Your task to perform on an android device: install app "Adobe Express: Graphic Design" Image 0: 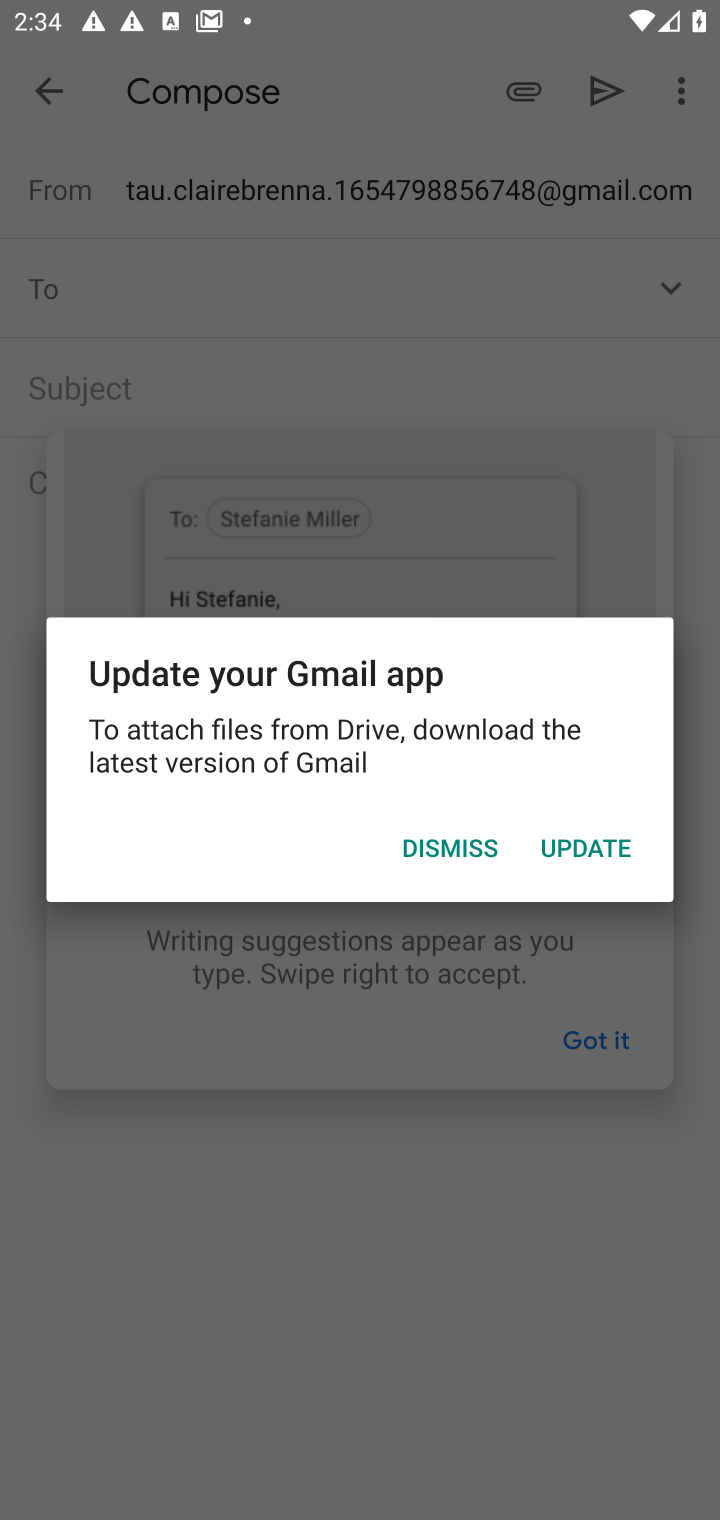
Step 0: press home button
Your task to perform on an android device: install app "Adobe Express: Graphic Design" Image 1: 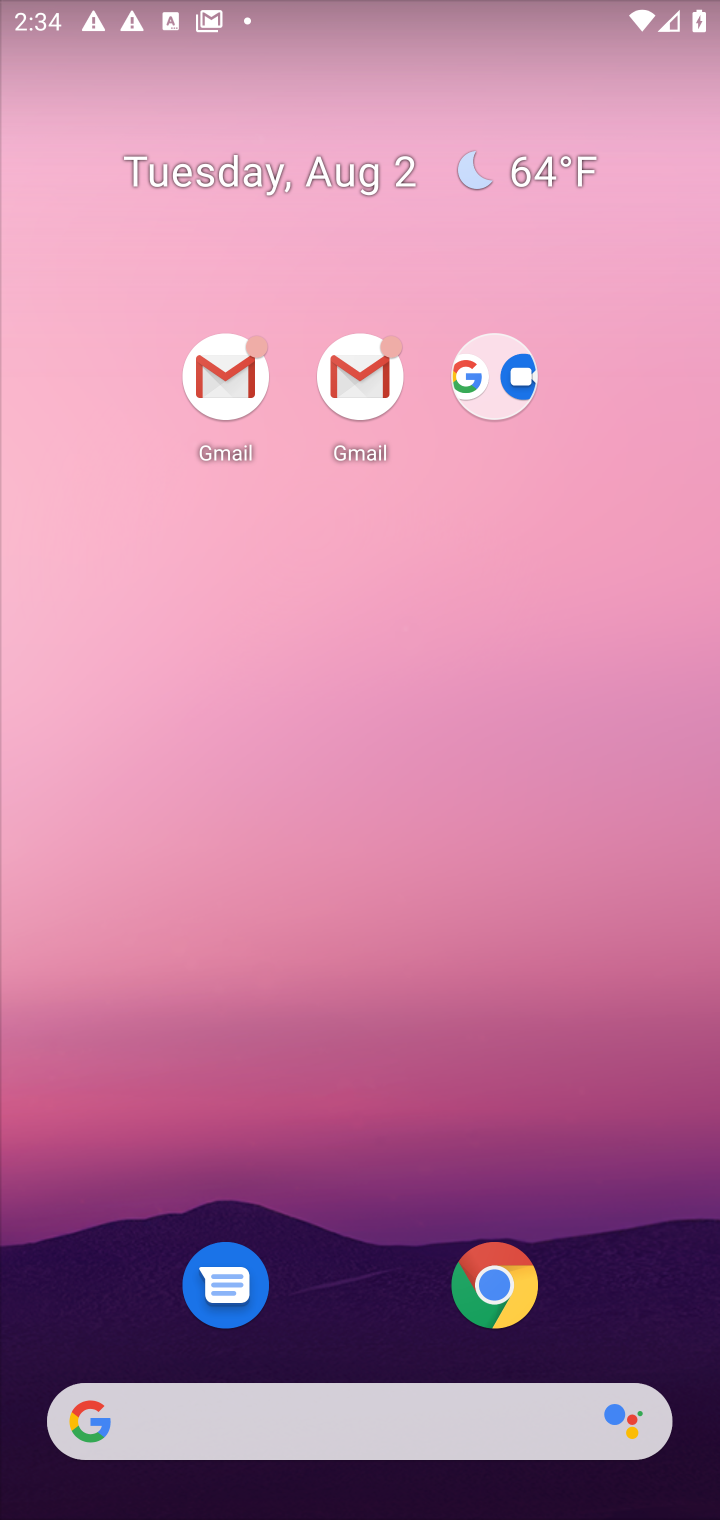
Step 1: drag from (336, 1038) to (334, 4)
Your task to perform on an android device: install app "Adobe Express: Graphic Design" Image 2: 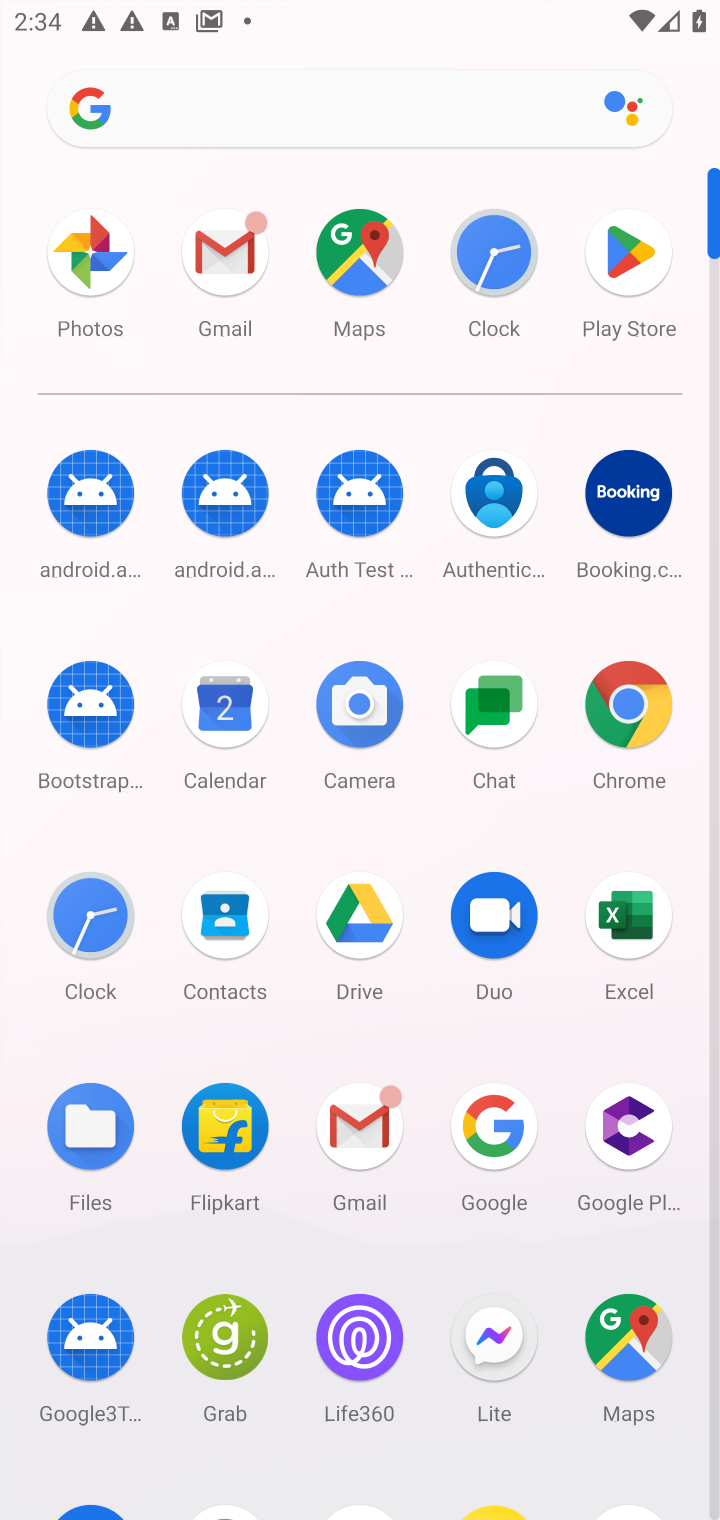
Step 2: drag from (396, 1228) to (314, 436)
Your task to perform on an android device: install app "Adobe Express: Graphic Design" Image 3: 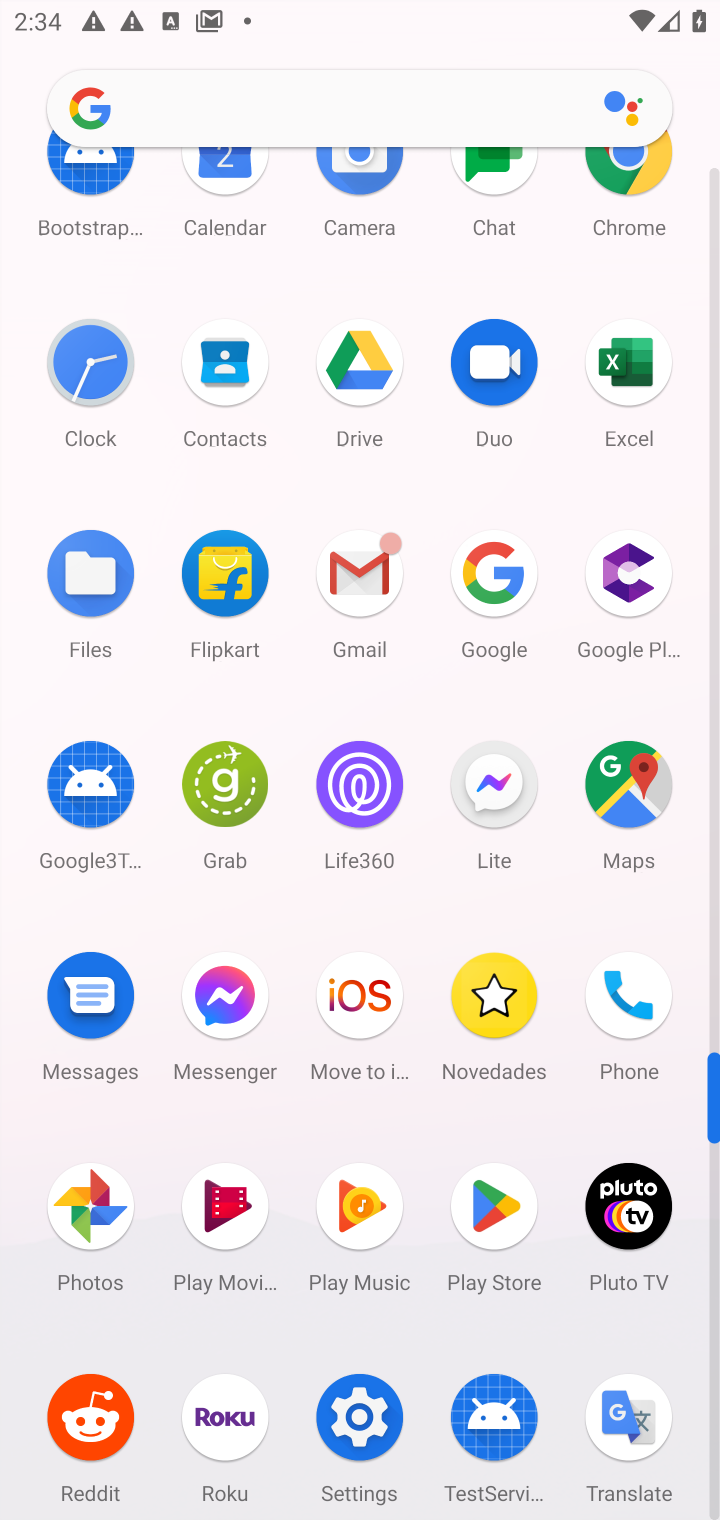
Step 3: click (515, 1211)
Your task to perform on an android device: install app "Adobe Express: Graphic Design" Image 4: 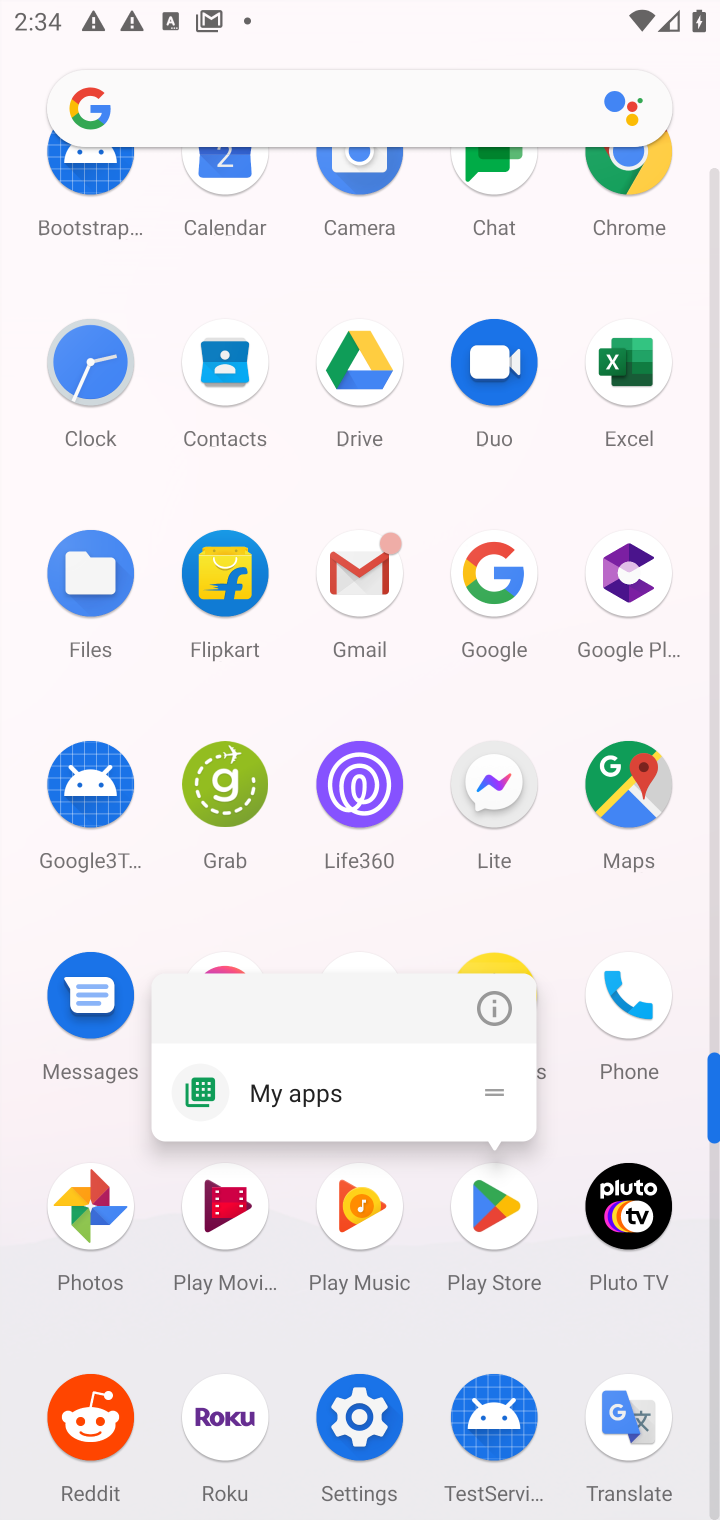
Step 4: click (481, 1227)
Your task to perform on an android device: install app "Adobe Express: Graphic Design" Image 5: 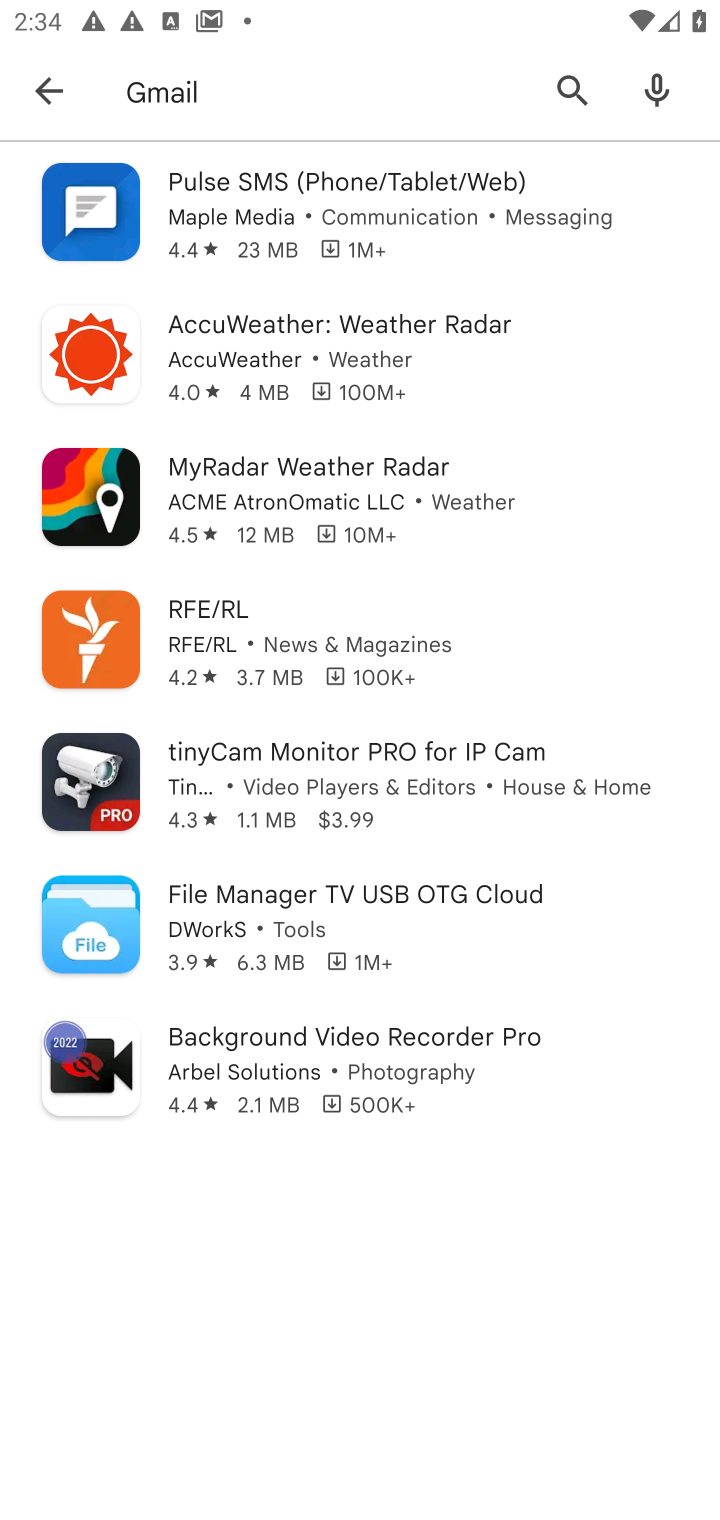
Step 5: click (219, 89)
Your task to perform on an android device: install app "Adobe Express: Graphic Design" Image 6: 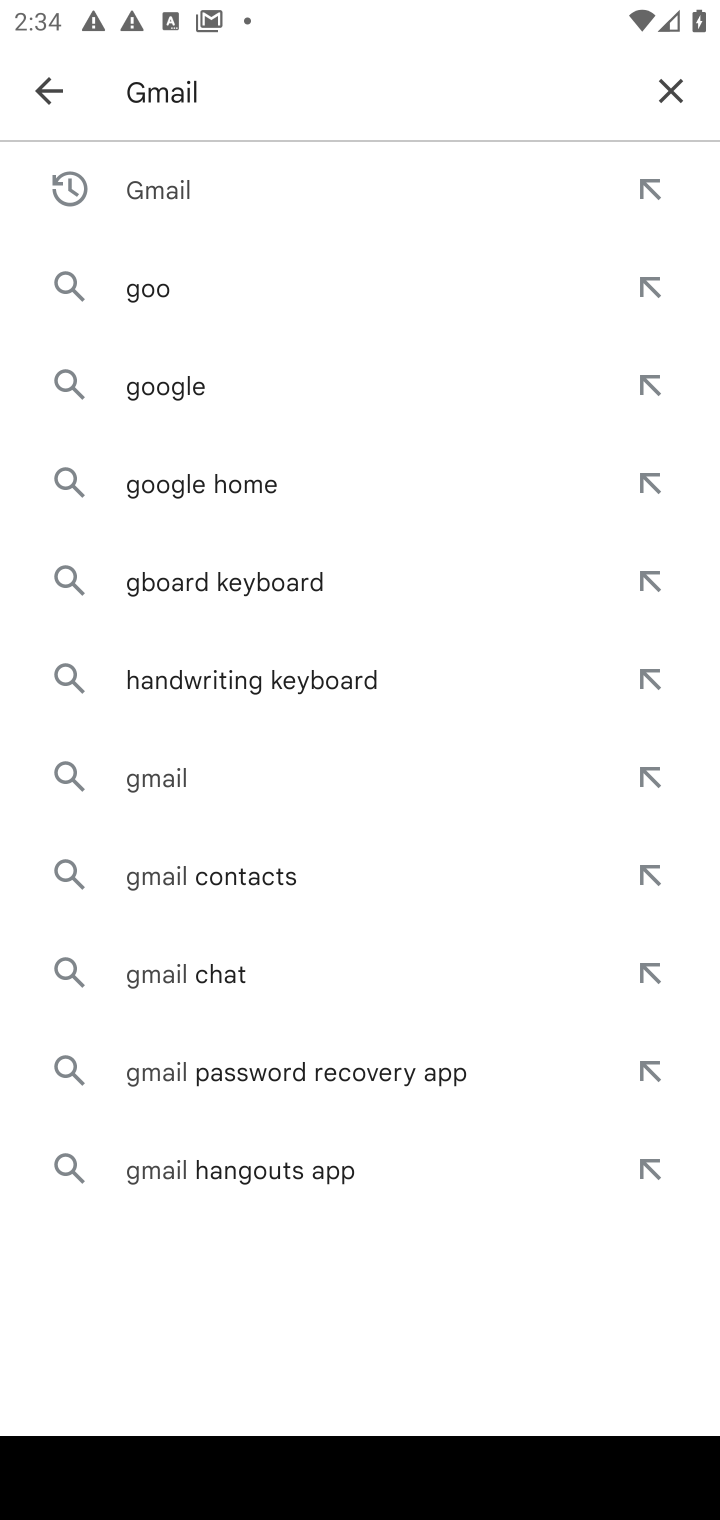
Step 6: click (683, 85)
Your task to perform on an android device: install app "Adobe Express: Graphic Design" Image 7: 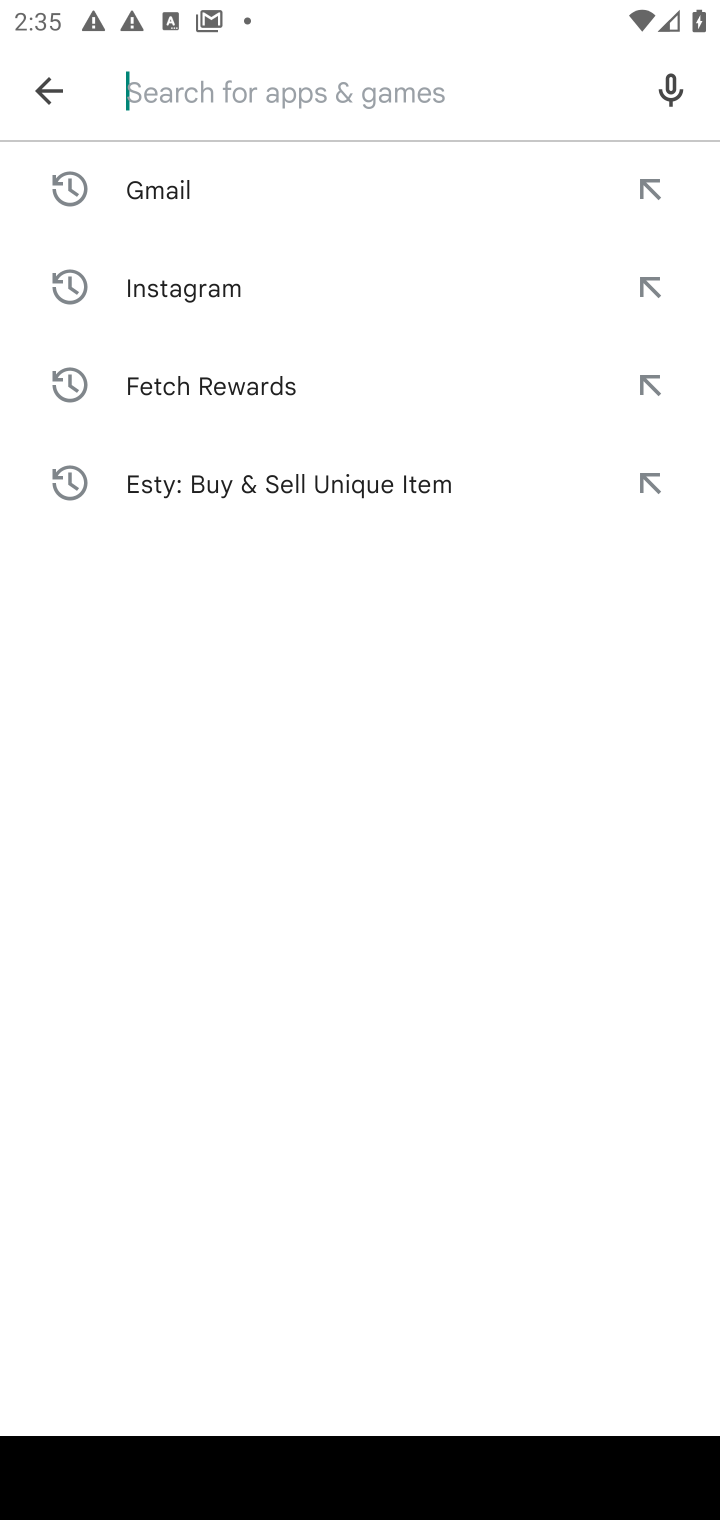
Step 7: type "Adobe Express: Graphic Design"
Your task to perform on an android device: install app "Adobe Express: Graphic Design" Image 8: 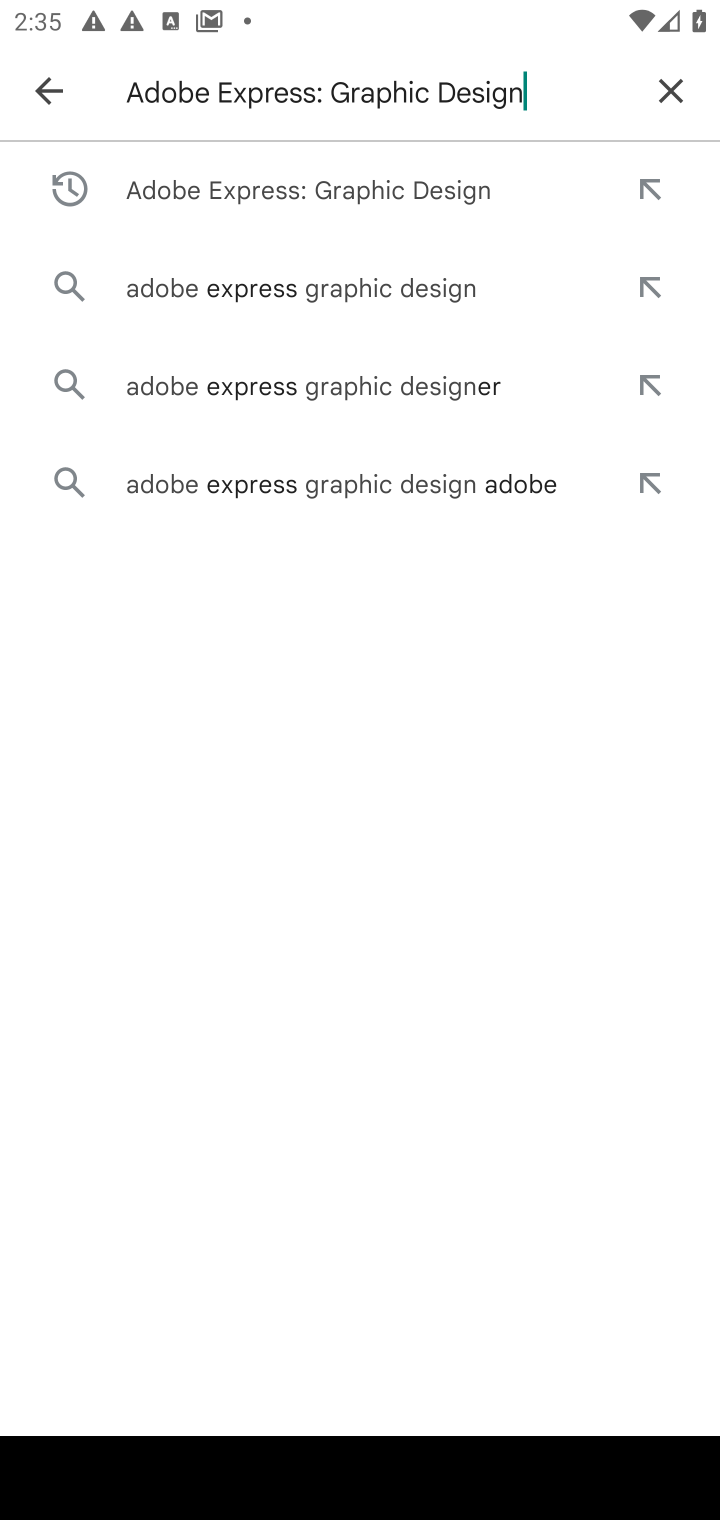
Step 8: press enter
Your task to perform on an android device: install app "Adobe Express: Graphic Design" Image 9: 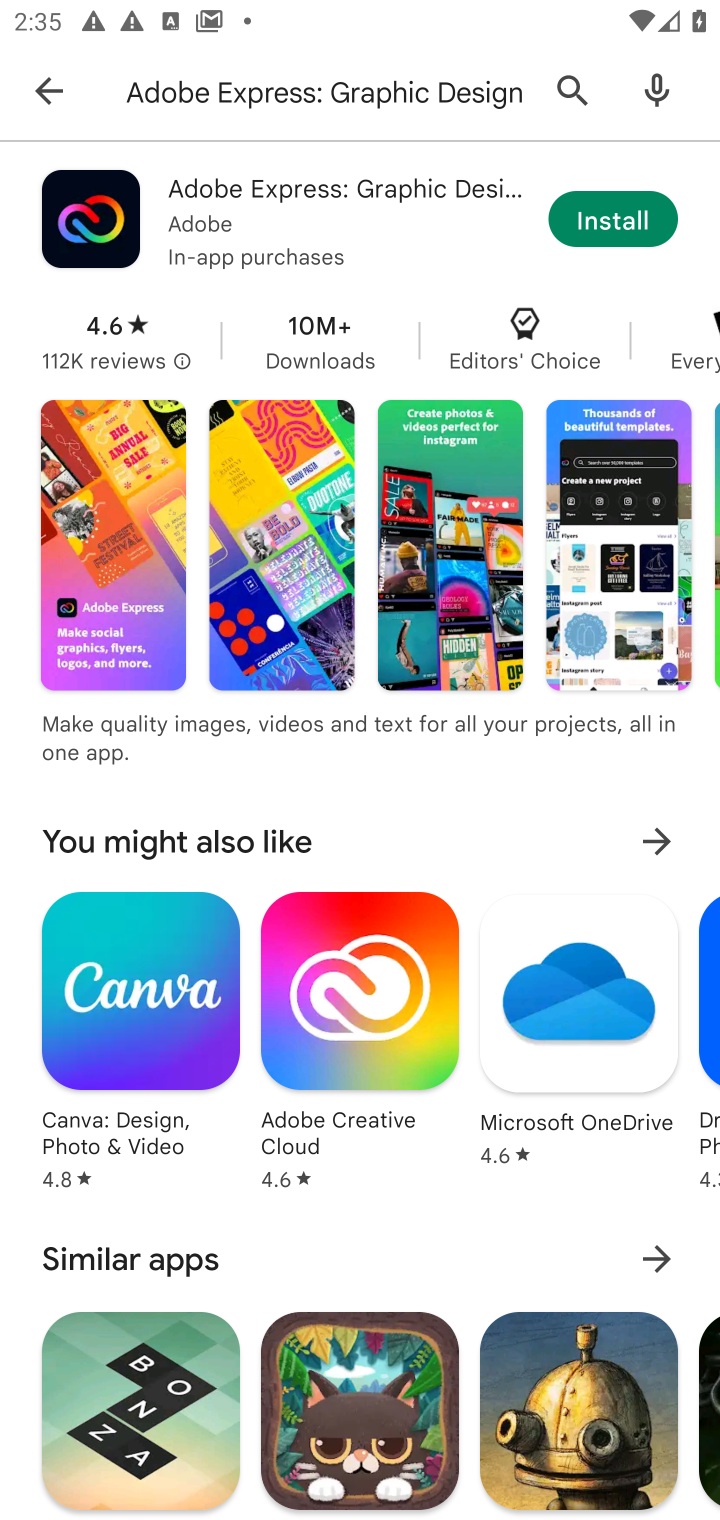
Step 9: click (650, 190)
Your task to perform on an android device: install app "Adobe Express: Graphic Design" Image 10: 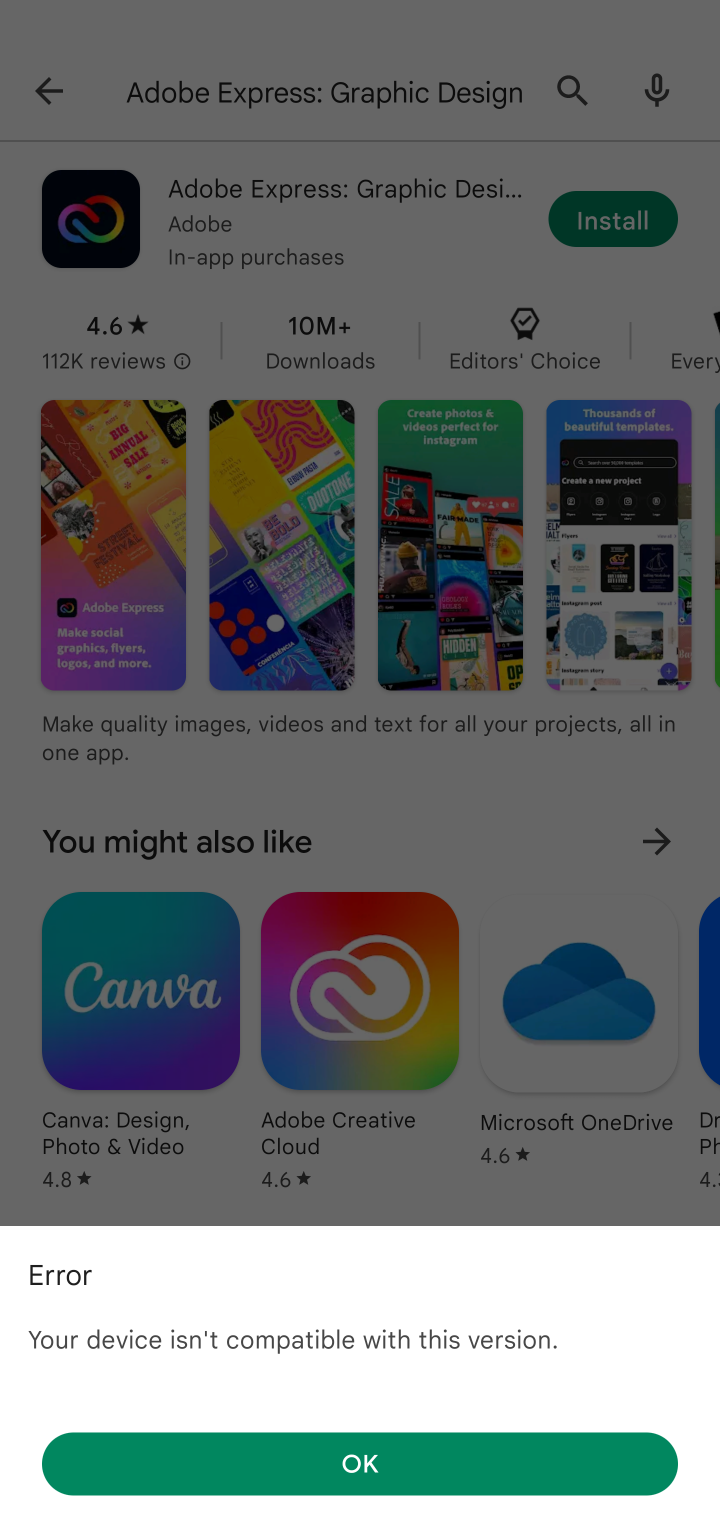
Step 10: task complete